Your task to perform on an android device: toggle wifi Image 0: 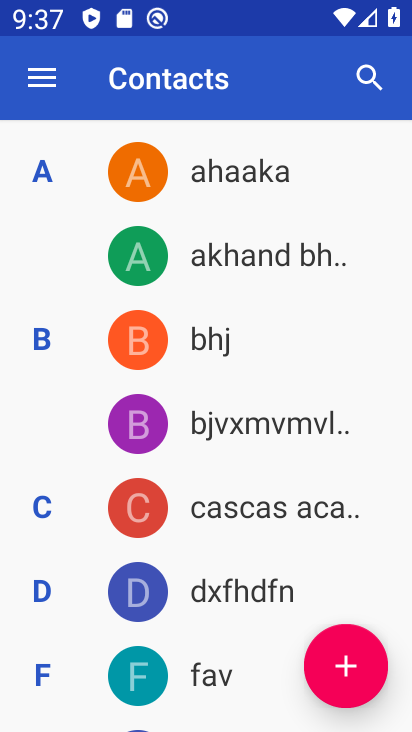
Step 0: press home button
Your task to perform on an android device: toggle wifi Image 1: 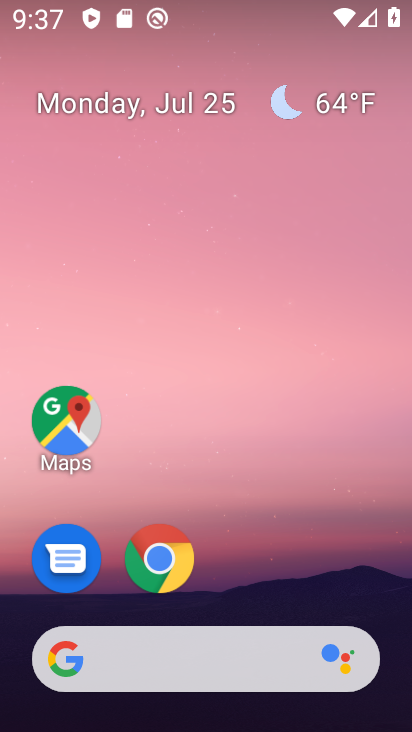
Step 1: drag from (337, 556) to (370, 128)
Your task to perform on an android device: toggle wifi Image 2: 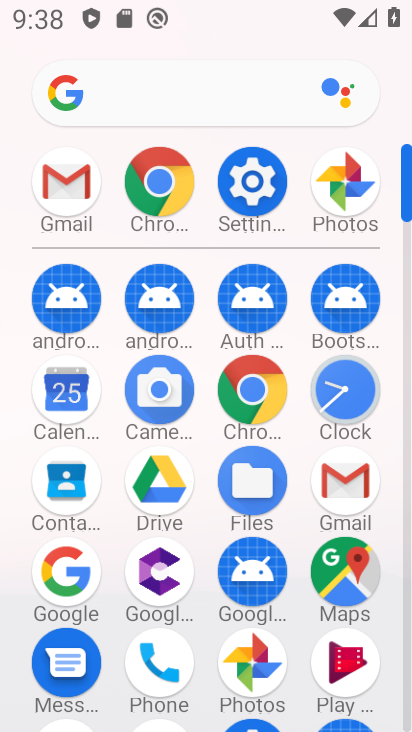
Step 2: click (254, 185)
Your task to perform on an android device: toggle wifi Image 3: 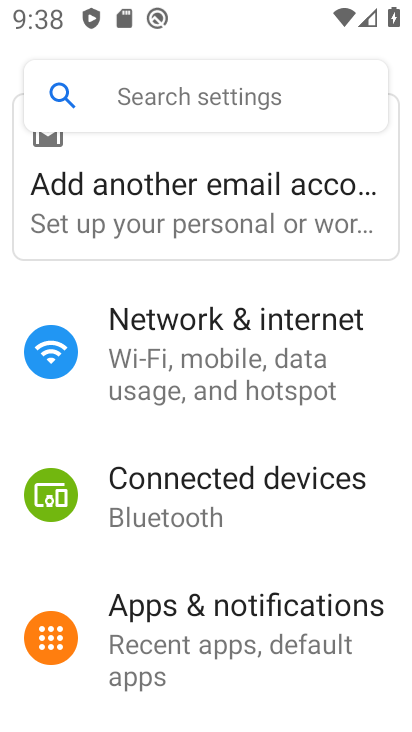
Step 3: click (241, 336)
Your task to perform on an android device: toggle wifi Image 4: 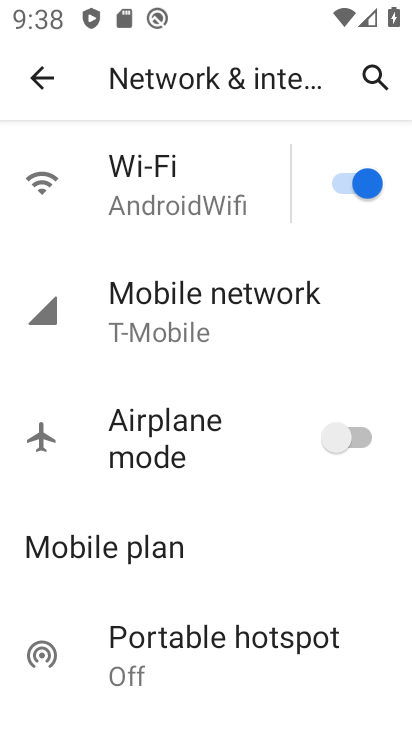
Step 4: click (359, 181)
Your task to perform on an android device: toggle wifi Image 5: 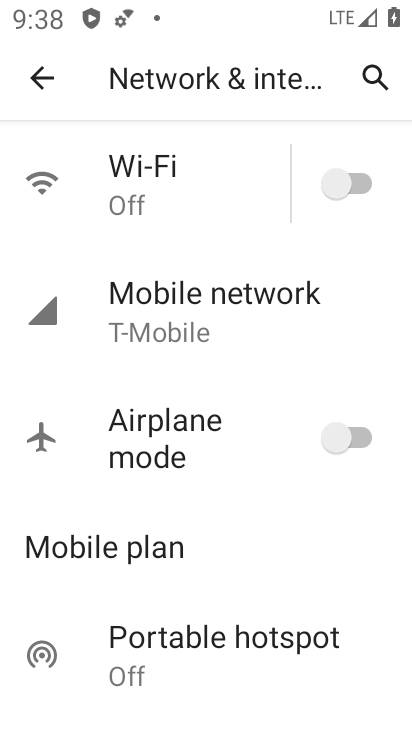
Step 5: task complete